Your task to perform on an android device: turn vacation reply on in the gmail app Image 0: 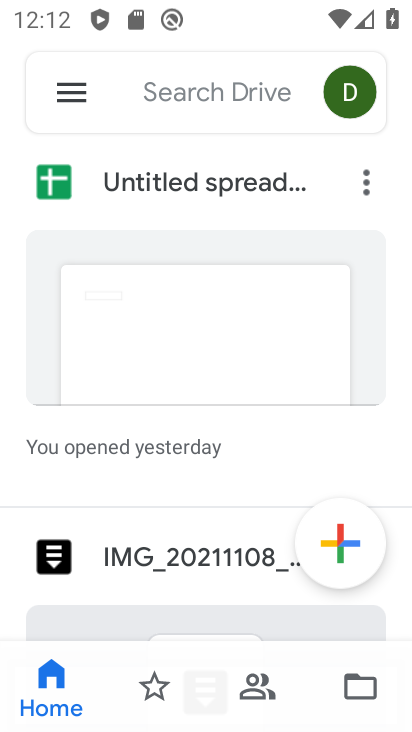
Step 0: press home button
Your task to perform on an android device: turn vacation reply on in the gmail app Image 1: 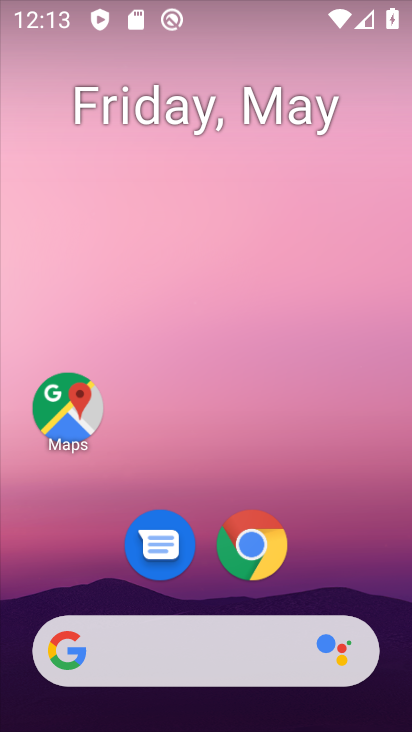
Step 1: drag from (323, 510) to (344, 1)
Your task to perform on an android device: turn vacation reply on in the gmail app Image 2: 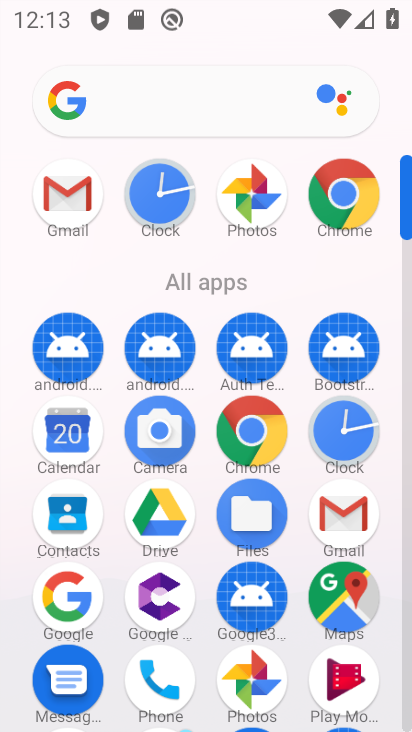
Step 2: click (64, 216)
Your task to perform on an android device: turn vacation reply on in the gmail app Image 3: 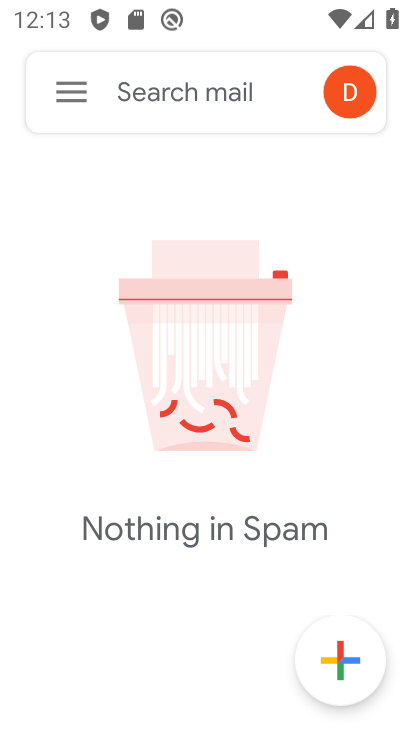
Step 3: click (56, 91)
Your task to perform on an android device: turn vacation reply on in the gmail app Image 4: 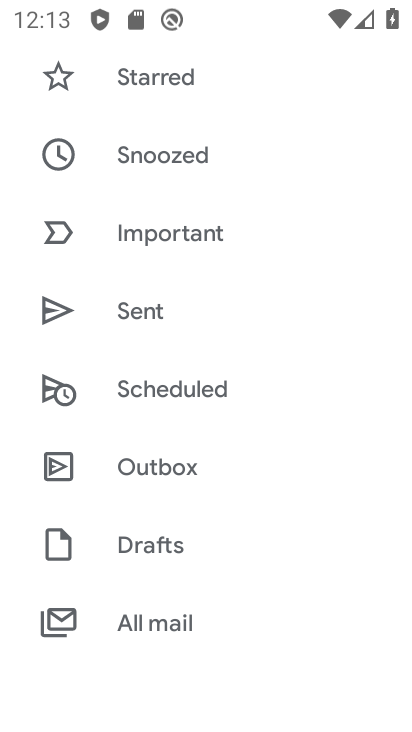
Step 4: drag from (251, 571) to (243, 60)
Your task to perform on an android device: turn vacation reply on in the gmail app Image 5: 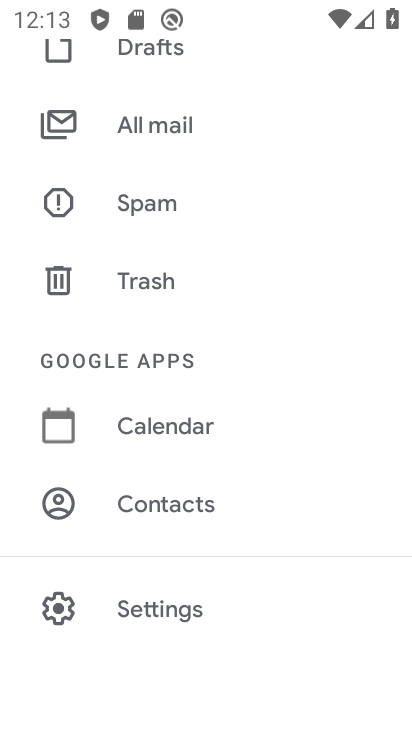
Step 5: drag from (329, 530) to (305, 100)
Your task to perform on an android device: turn vacation reply on in the gmail app Image 6: 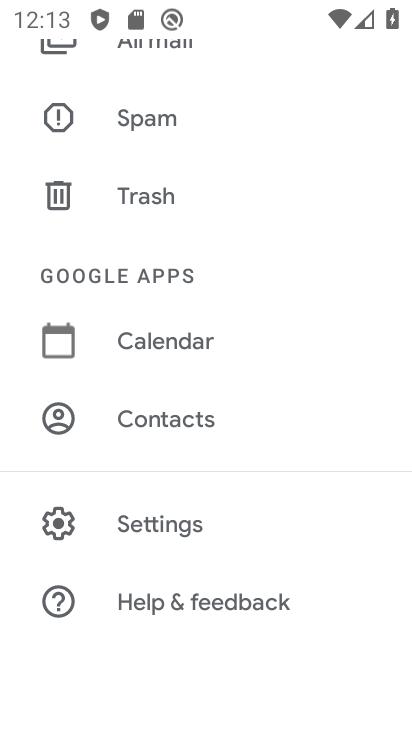
Step 6: click (248, 518)
Your task to perform on an android device: turn vacation reply on in the gmail app Image 7: 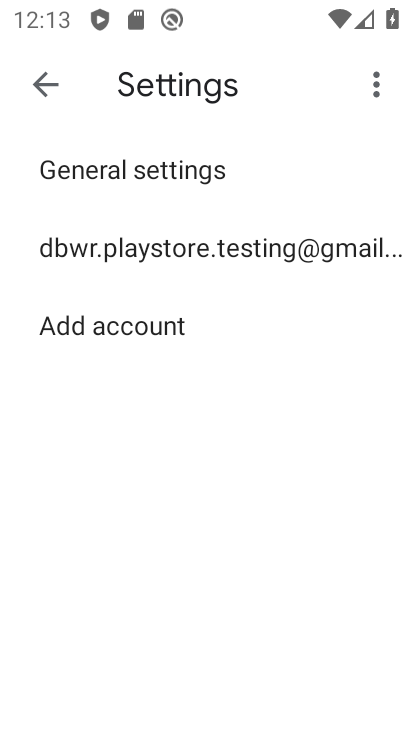
Step 7: click (369, 76)
Your task to perform on an android device: turn vacation reply on in the gmail app Image 8: 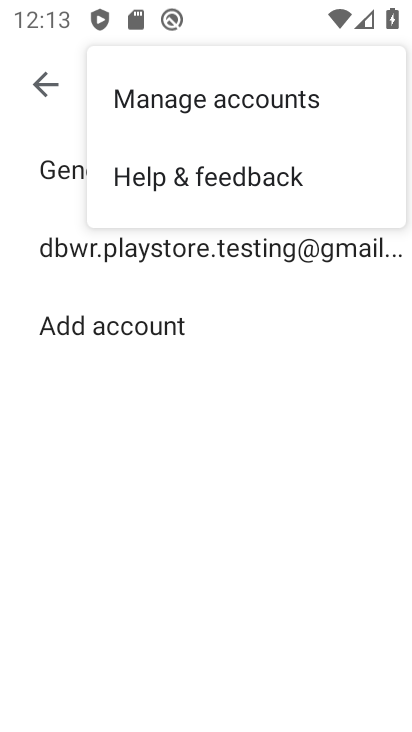
Step 8: press back button
Your task to perform on an android device: turn vacation reply on in the gmail app Image 9: 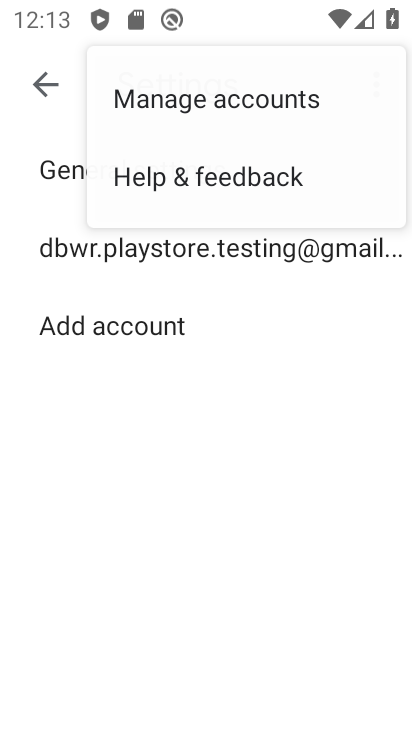
Step 9: press back button
Your task to perform on an android device: turn vacation reply on in the gmail app Image 10: 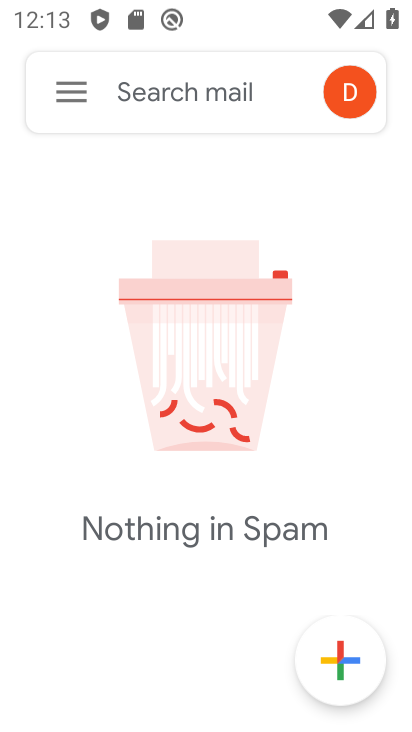
Step 10: click (74, 74)
Your task to perform on an android device: turn vacation reply on in the gmail app Image 11: 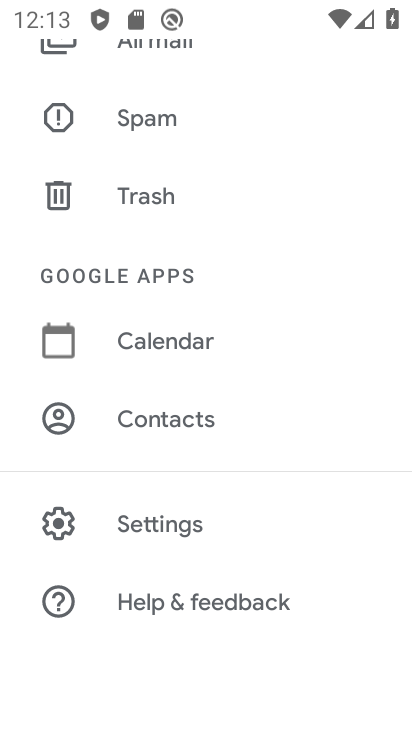
Step 11: task complete